Your task to perform on an android device: Go to Google Image 0: 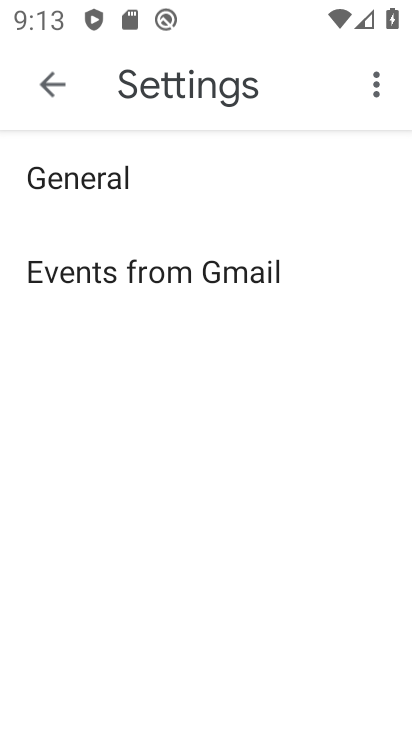
Step 0: press home button
Your task to perform on an android device: Go to Google Image 1: 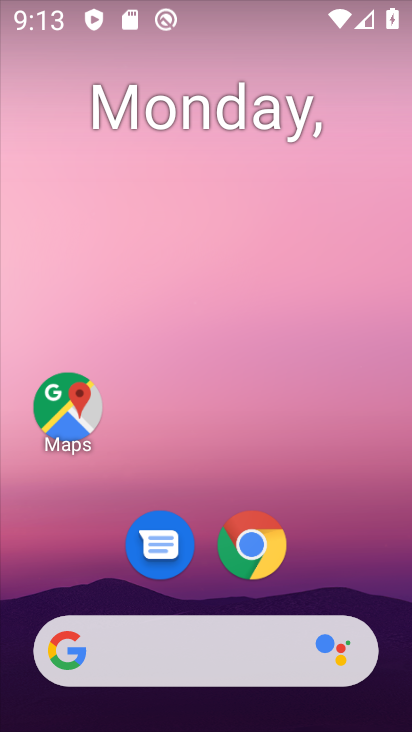
Step 1: click (151, 652)
Your task to perform on an android device: Go to Google Image 2: 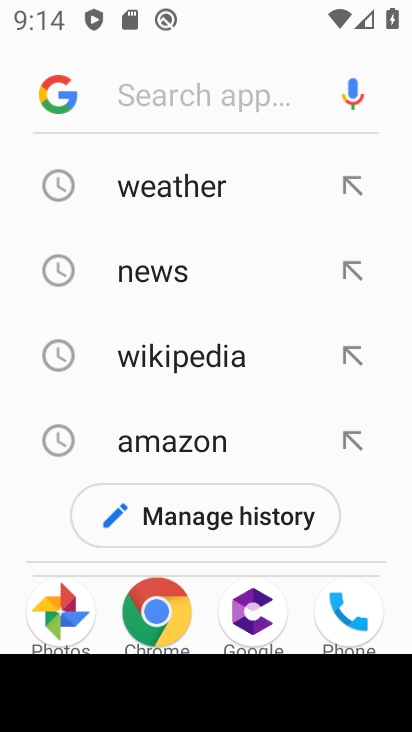
Step 2: click (58, 95)
Your task to perform on an android device: Go to Google Image 3: 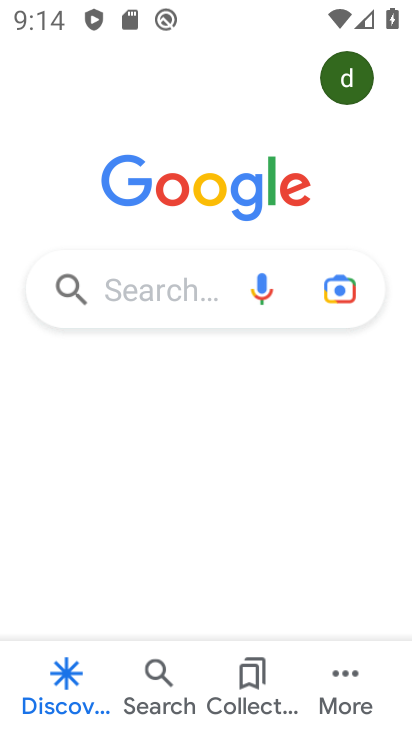
Step 3: task complete